Your task to perform on an android device: open chrome privacy settings Image 0: 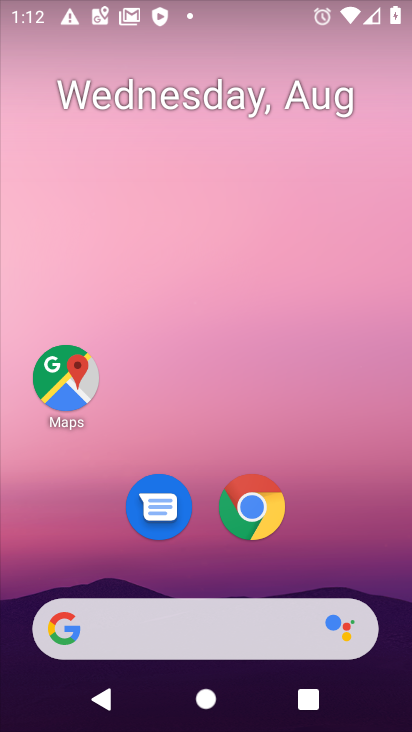
Step 0: click (240, 531)
Your task to perform on an android device: open chrome privacy settings Image 1: 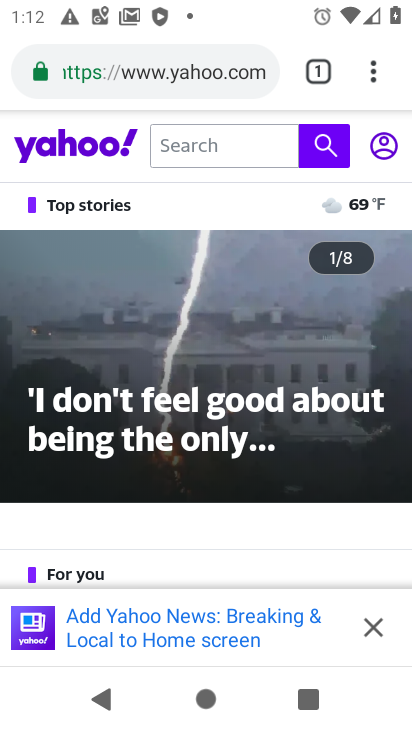
Step 1: click (362, 78)
Your task to perform on an android device: open chrome privacy settings Image 2: 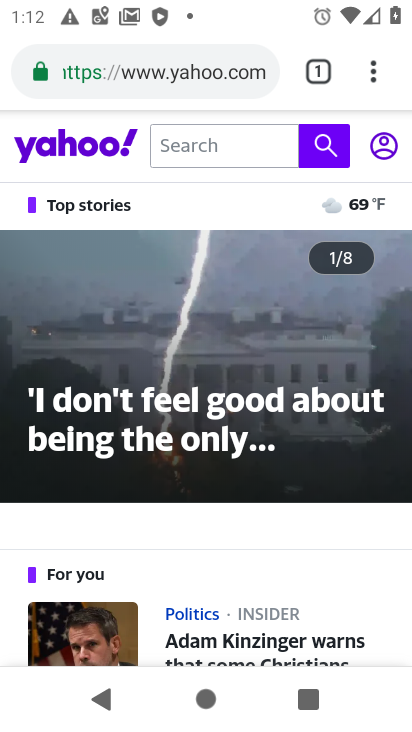
Step 2: click (379, 61)
Your task to perform on an android device: open chrome privacy settings Image 3: 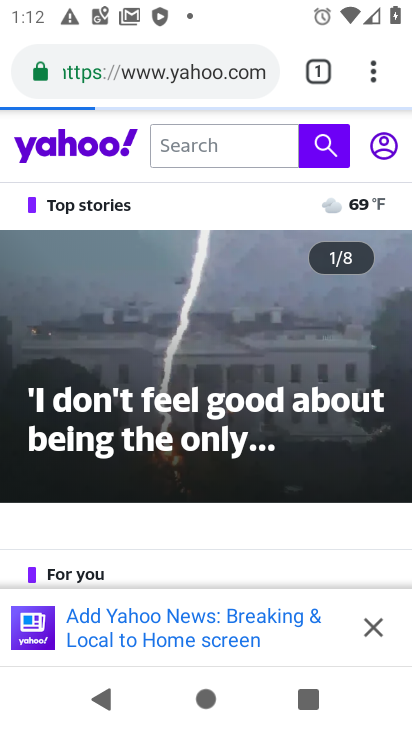
Step 3: drag from (376, 63) to (91, 515)
Your task to perform on an android device: open chrome privacy settings Image 4: 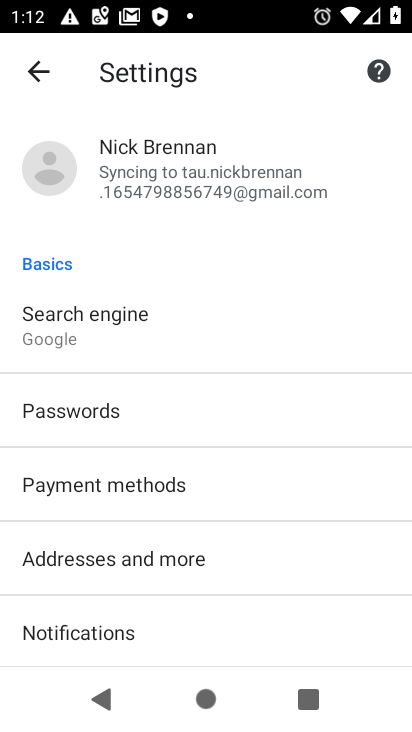
Step 4: drag from (135, 543) to (108, 77)
Your task to perform on an android device: open chrome privacy settings Image 5: 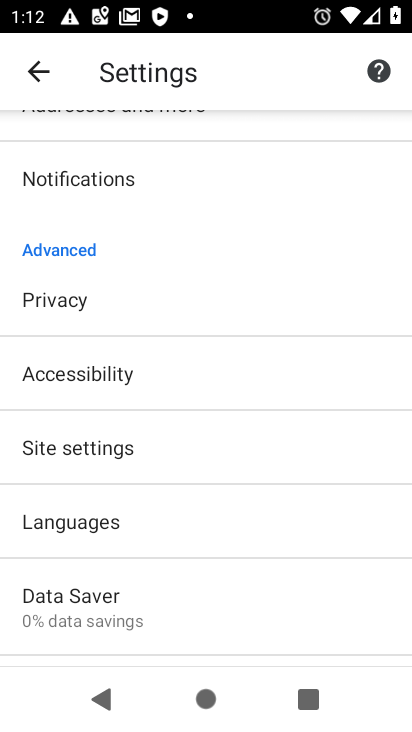
Step 5: click (64, 311)
Your task to perform on an android device: open chrome privacy settings Image 6: 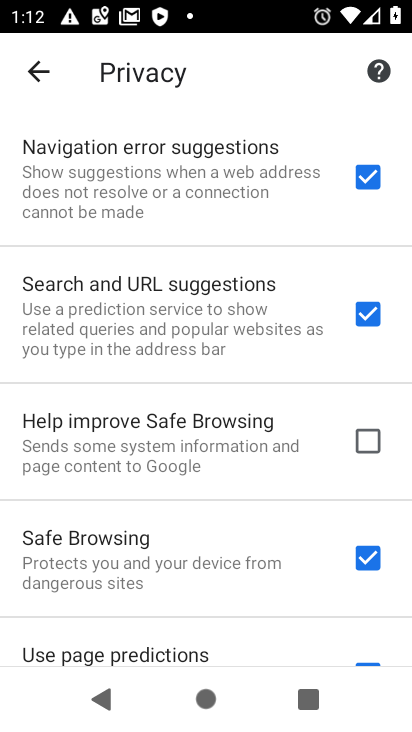
Step 6: task complete